Your task to perform on an android device: check battery use Image 0: 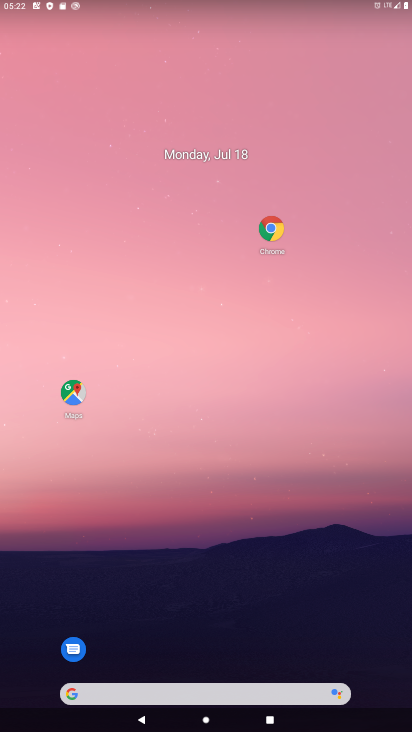
Step 0: drag from (186, 9) to (249, 526)
Your task to perform on an android device: check battery use Image 1: 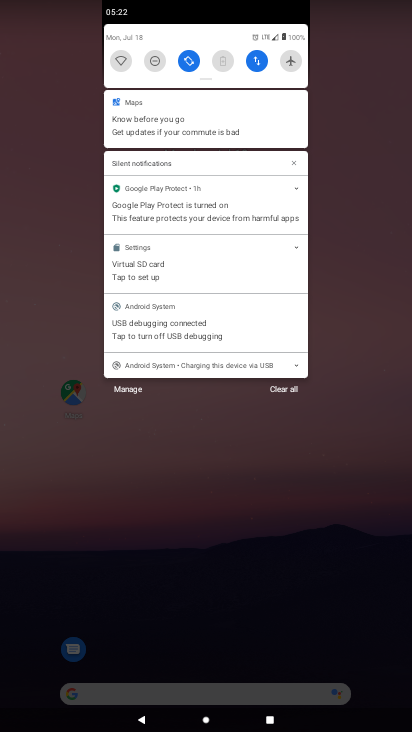
Step 1: click (223, 64)
Your task to perform on an android device: check battery use Image 2: 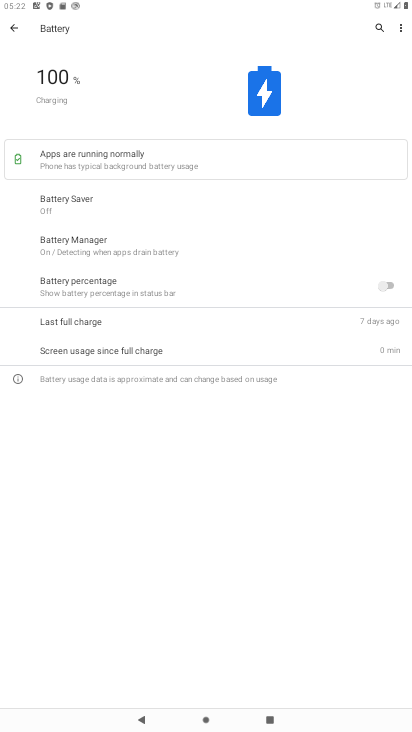
Step 2: click (397, 28)
Your task to perform on an android device: check battery use Image 3: 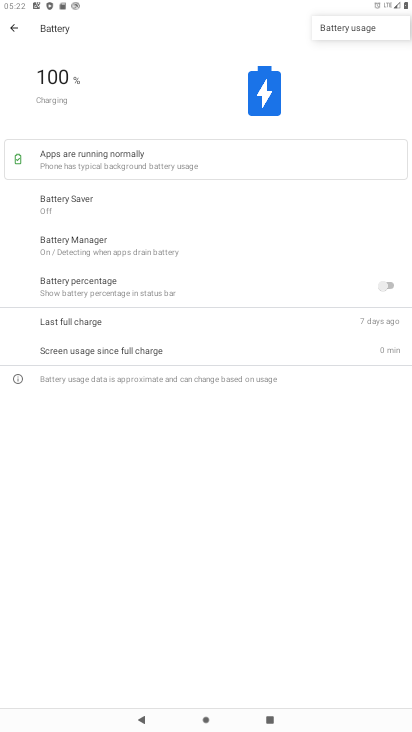
Step 3: click (370, 34)
Your task to perform on an android device: check battery use Image 4: 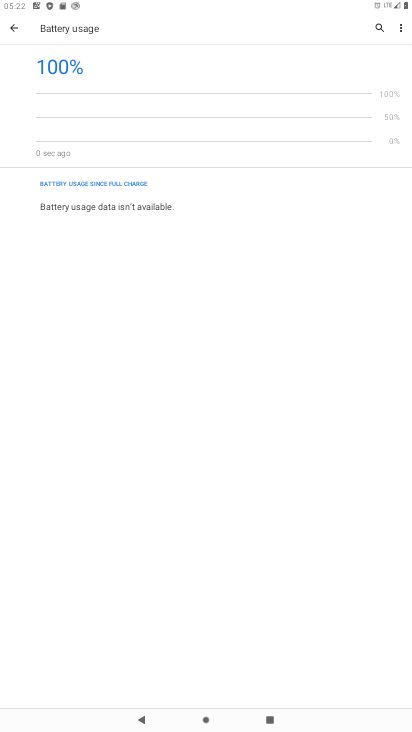
Step 4: task complete